Your task to perform on an android device: Open Google Chrome Image 0: 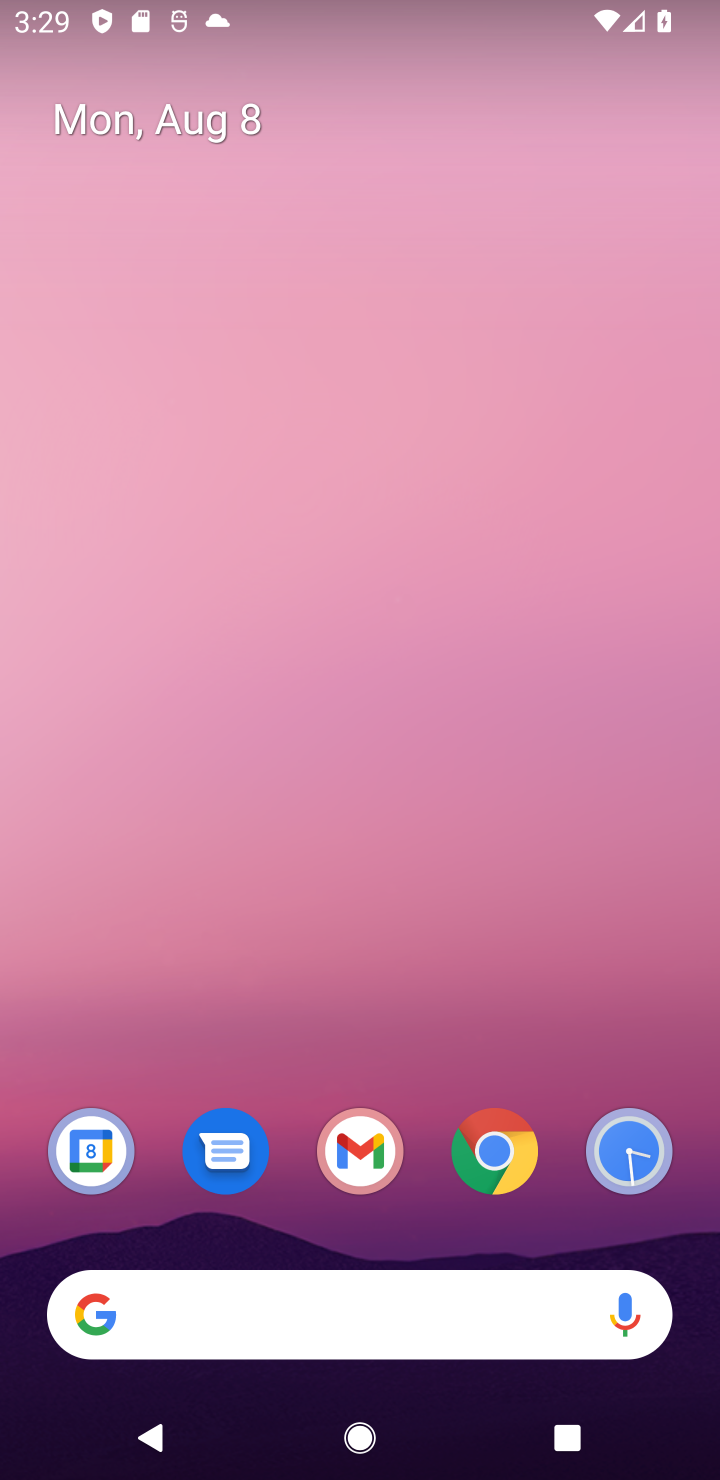
Step 0: click (497, 1131)
Your task to perform on an android device: Open Google Chrome Image 1: 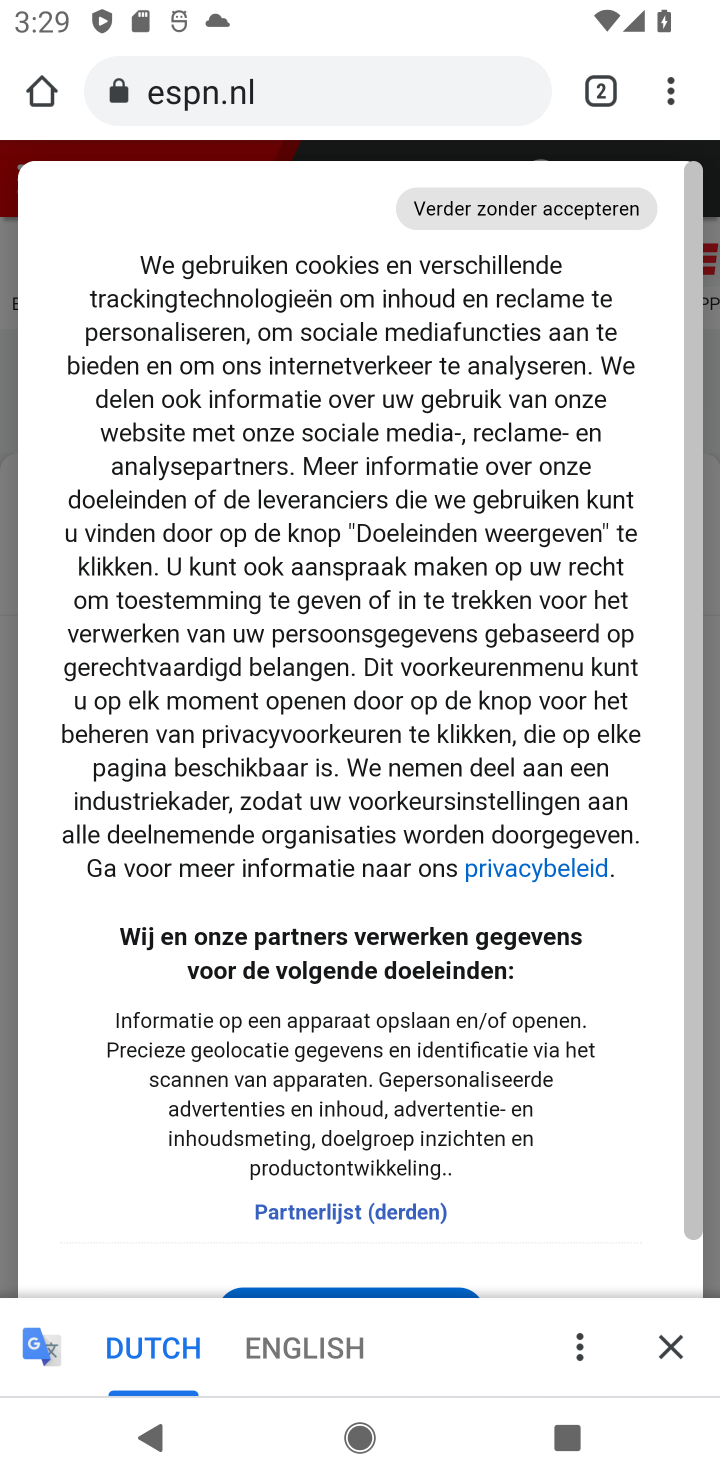
Step 1: task complete